Your task to perform on an android device: remove spam from my inbox in the gmail app Image 0: 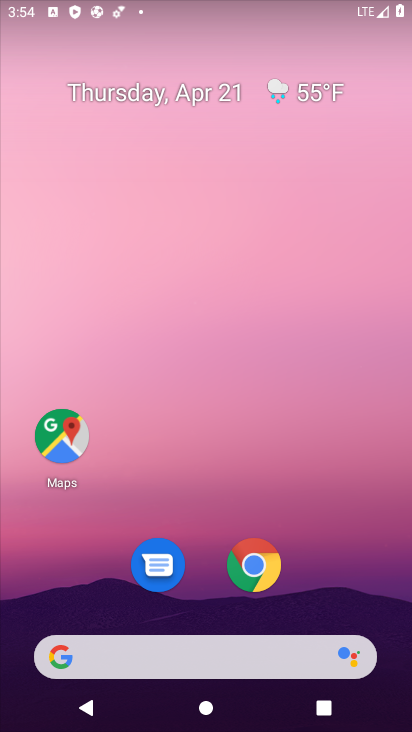
Step 0: drag from (324, 544) to (310, 105)
Your task to perform on an android device: remove spam from my inbox in the gmail app Image 1: 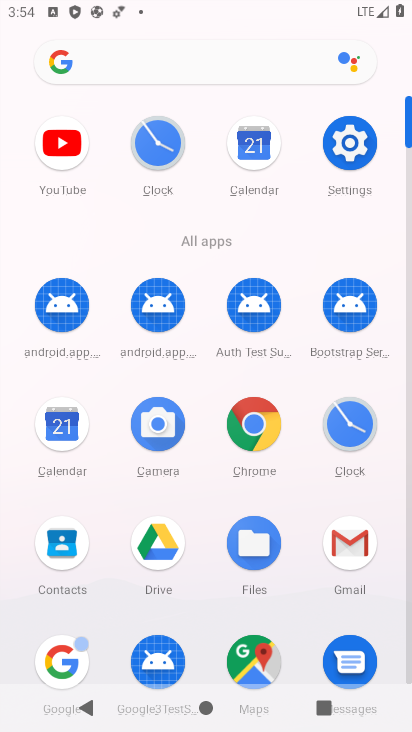
Step 1: click (351, 540)
Your task to perform on an android device: remove spam from my inbox in the gmail app Image 2: 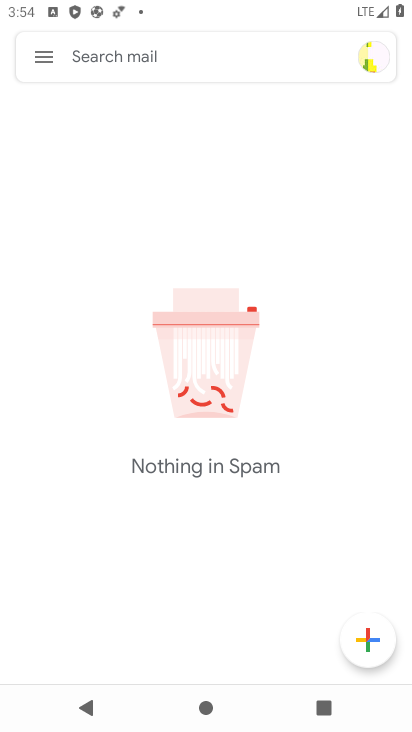
Step 2: task complete